Your task to perform on an android device: Show me popular games on the Play Store Image 0: 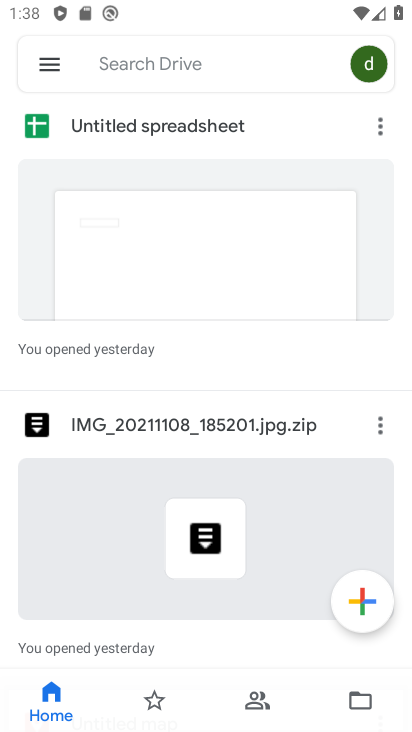
Step 0: press home button
Your task to perform on an android device: Show me popular games on the Play Store Image 1: 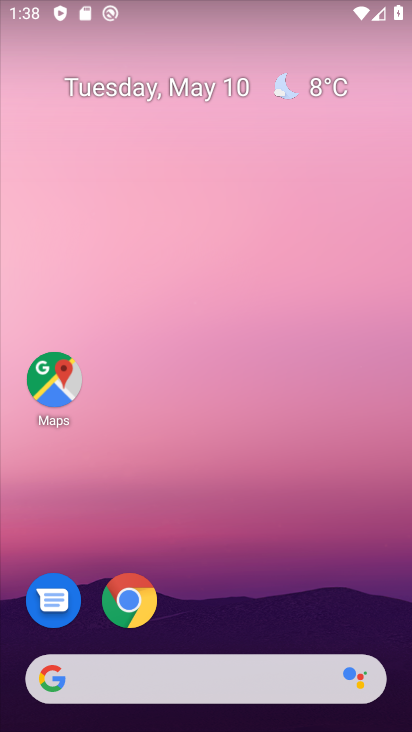
Step 1: drag from (222, 612) to (249, 141)
Your task to perform on an android device: Show me popular games on the Play Store Image 2: 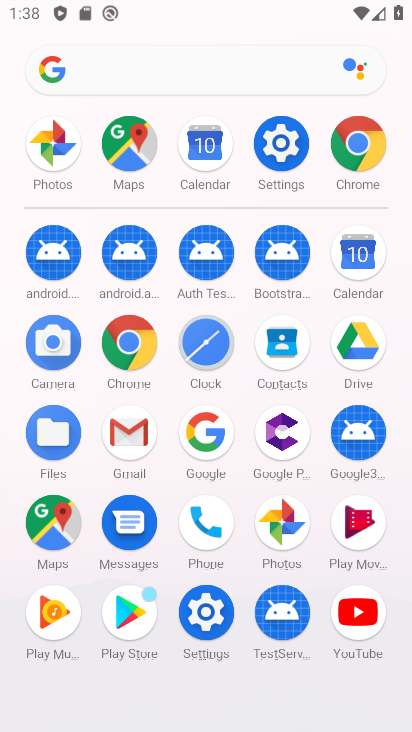
Step 2: click (127, 602)
Your task to perform on an android device: Show me popular games on the Play Store Image 3: 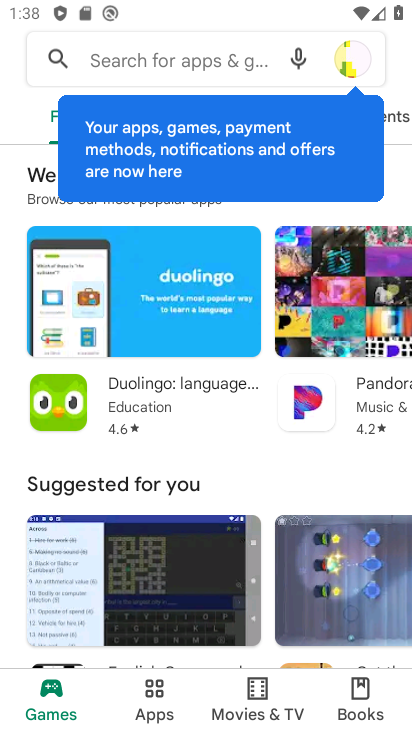
Step 3: drag from (189, 493) to (195, 390)
Your task to perform on an android device: Show me popular games on the Play Store Image 4: 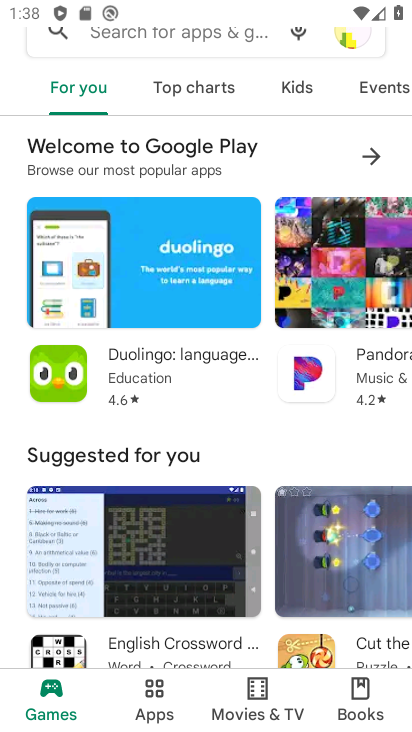
Step 4: drag from (212, 260) to (240, 132)
Your task to perform on an android device: Show me popular games on the Play Store Image 5: 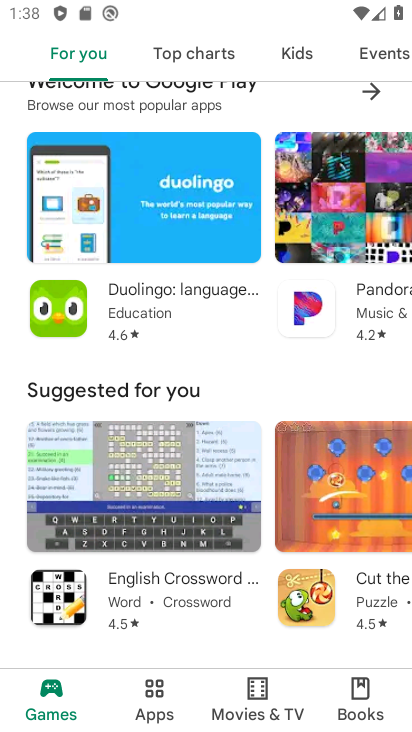
Step 5: drag from (201, 608) to (219, 233)
Your task to perform on an android device: Show me popular games on the Play Store Image 6: 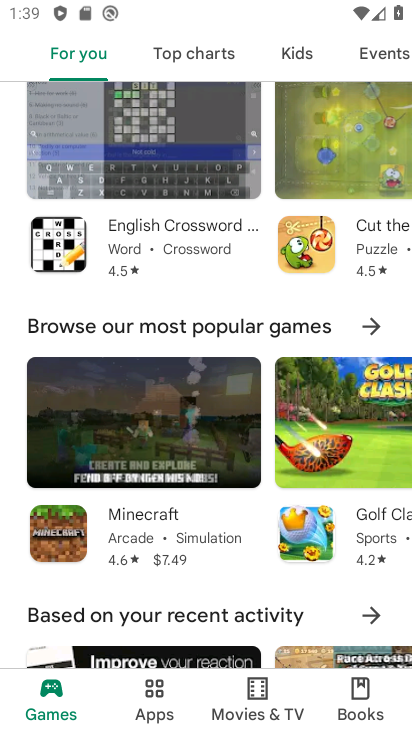
Step 6: click (370, 324)
Your task to perform on an android device: Show me popular games on the Play Store Image 7: 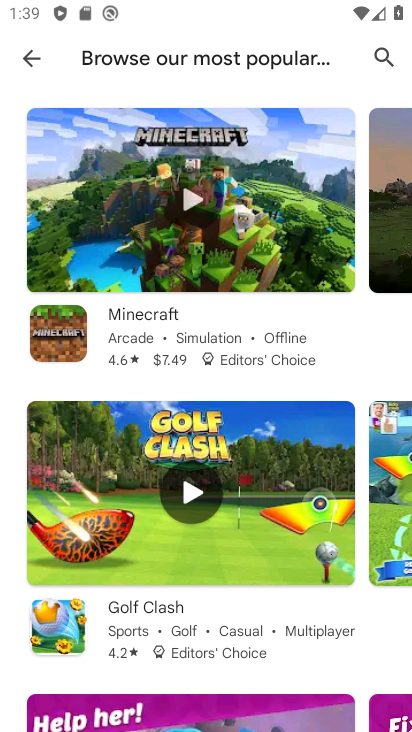
Step 7: task complete